Your task to perform on an android device: set the timer Image 0: 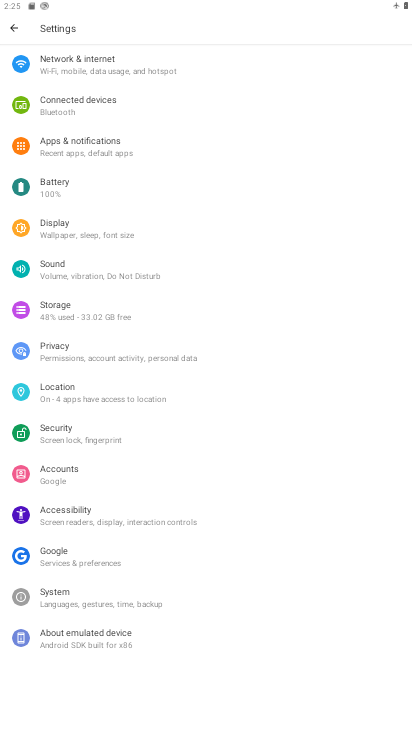
Step 0: press home button
Your task to perform on an android device: set the timer Image 1: 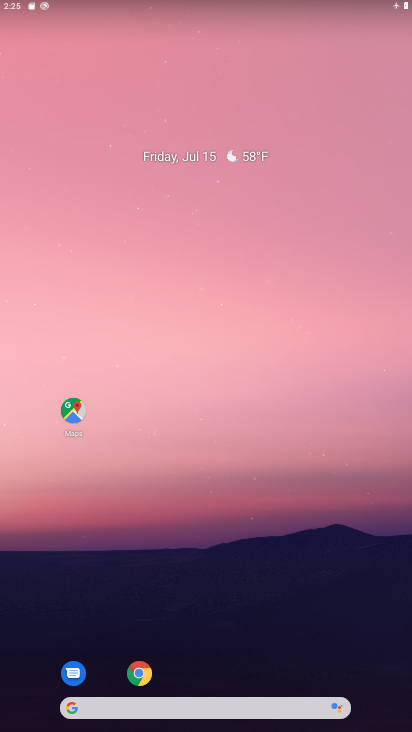
Step 1: drag from (374, 608) to (340, 91)
Your task to perform on an android device: set the timer Image 2: 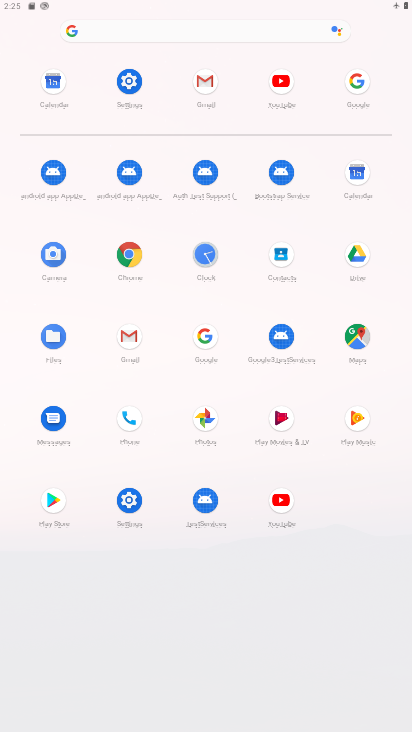
Step 2: click (210, 255)
Your task to perform on an android device: set the timer Image 3: 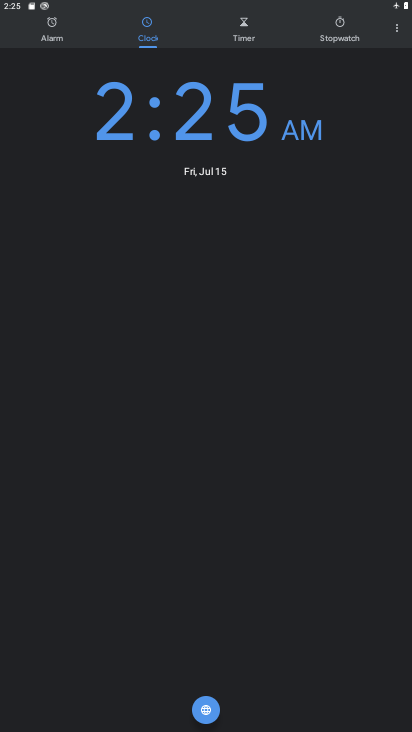
Step 3: click (243, 32)
Your task to perform on an android device: set the timer Image 4: 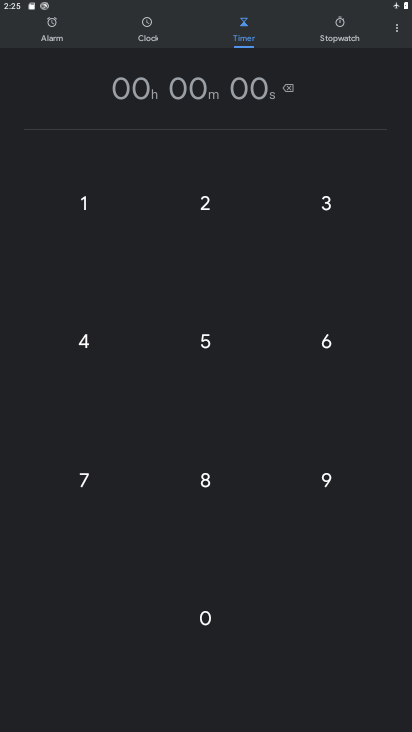
Step 4: click (211, 351)
Your task to perform on an android device: set the timer Image 5: 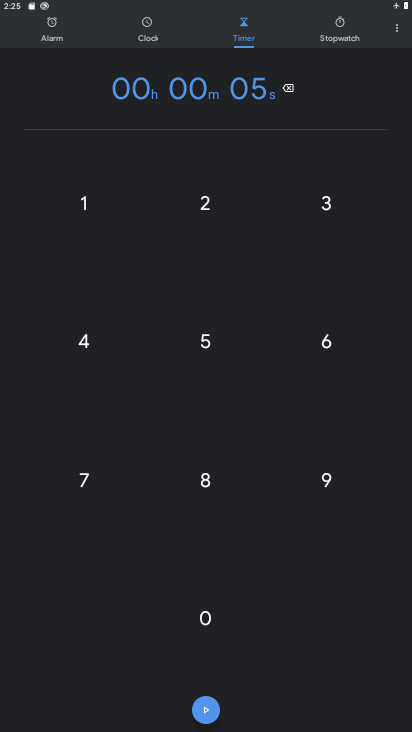
Step 5: click (211, 351)
Your task to perform on an android device: set the timer Image 6: 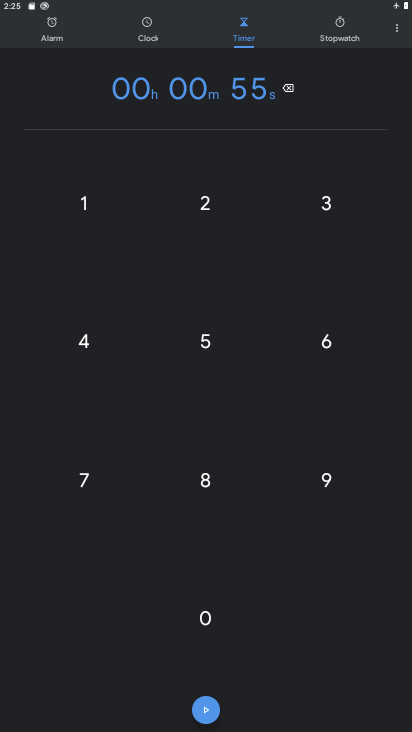
Step 6: click (208, 708)
Your task to perform on an android device: set the timer Image 7: 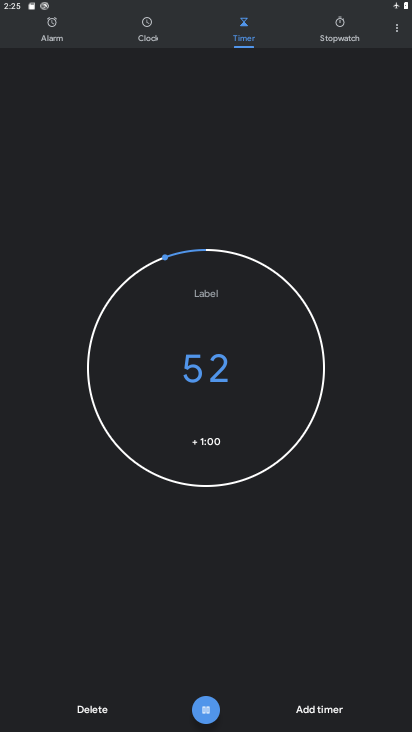
Step 7: task complete